Your task to perform on an android device: change keyboard looks Image 0: 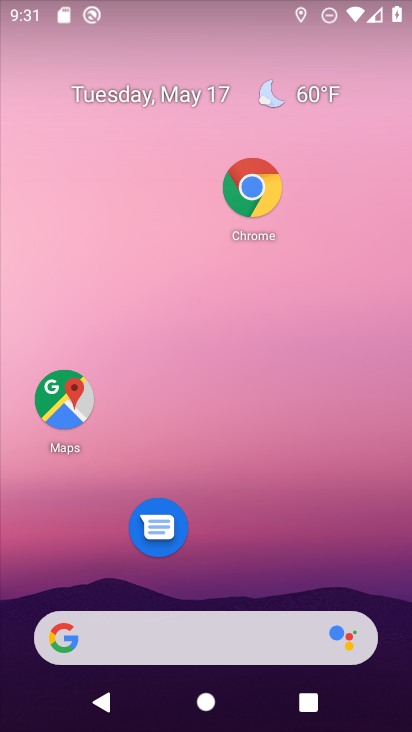
Step 0: drag from (310, 551) to (315, 211)
Your task to perform on an android device: change keyboard looks Image 1: 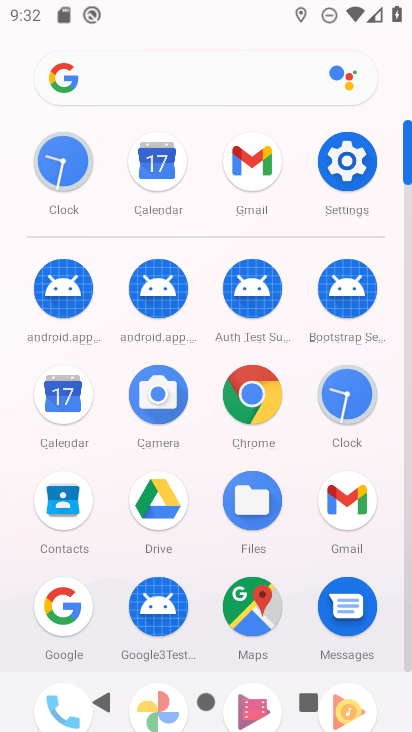
Step 1: click (365, 168)
Your task to perform on an android device: change keyboard looks Image 2: 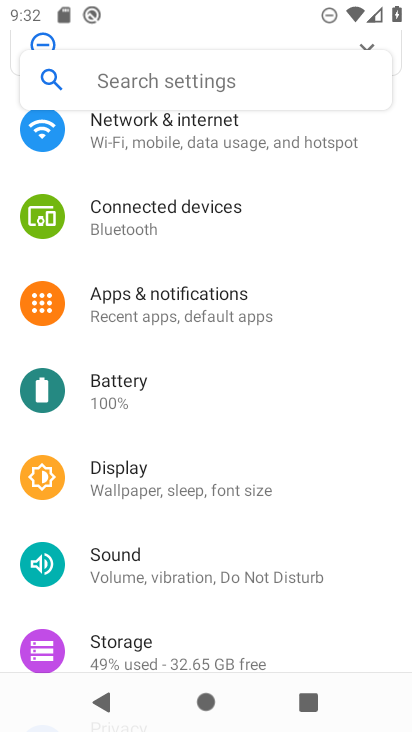
Step 2: drag from (209, 569) to (234, 165)
Your task to perform on an android device: change keyboard looks Image 3: 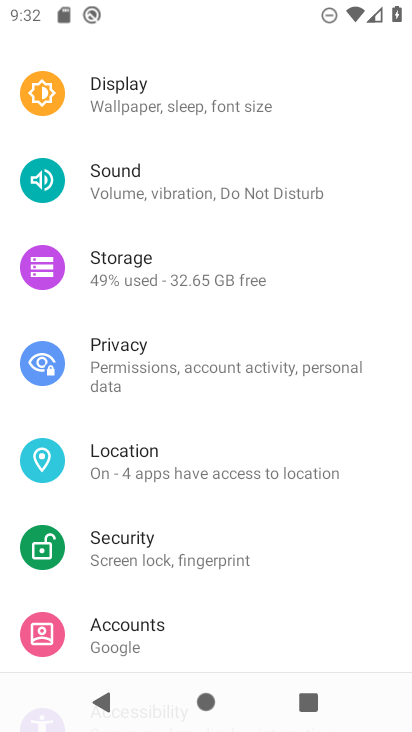
Step 3: drag from (172, 580) to (181, 229)
Your task to perform on an android device: change keyboard looks Image 4: 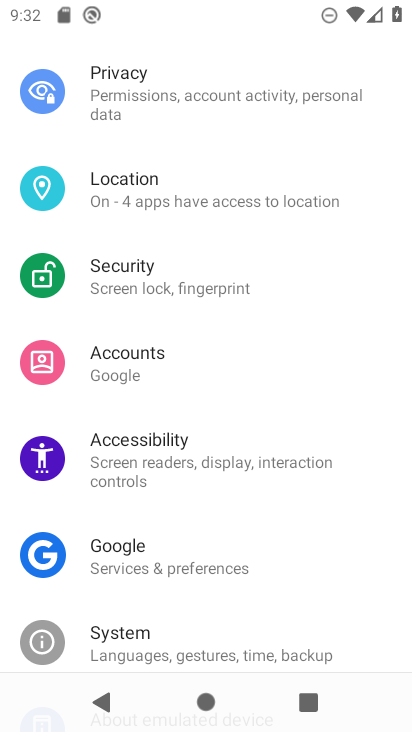
Step 4: click (169, 616)
Your task to perform on an android device: change keyboard looks Image 5: 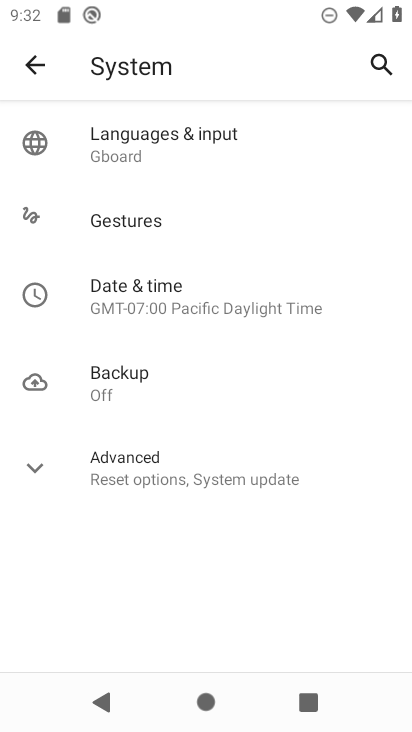
Step 5: click (166, 173)
Your task to perform on an android device: change keyboard looks Image 6: 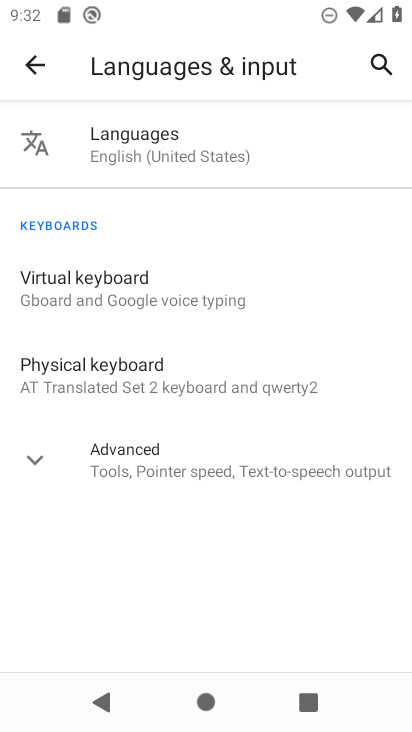
Step 6: click (148, 289)
Your task to perform on an android device: change keyboard looks Image 7: 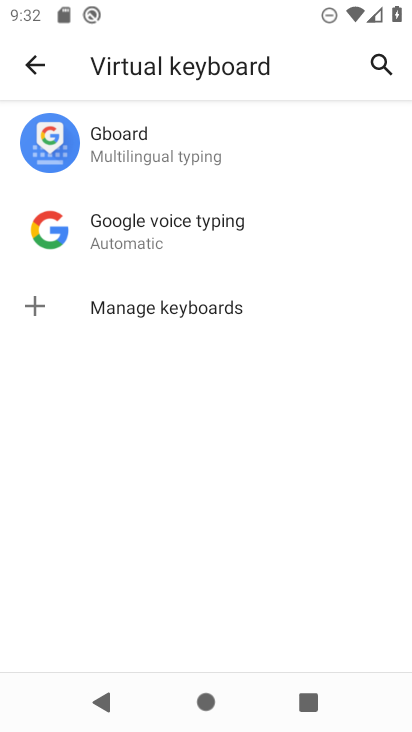
Step 7: click (196, 154)
Your task to perform on an android device: change keyboard looks Image 8: 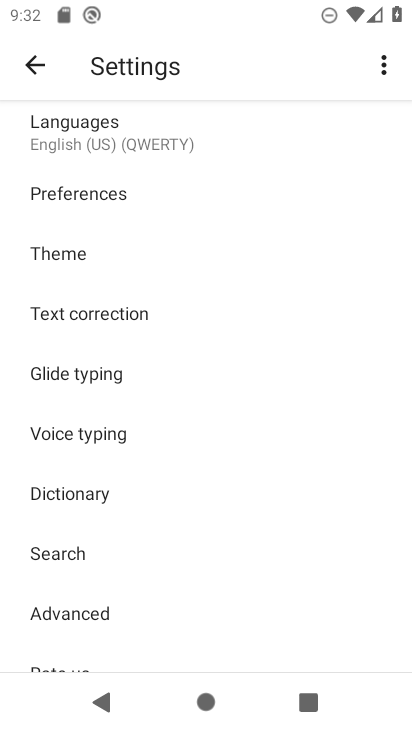
Step 8: click (97, 255)
Your task to perform on an android device: change keyboard looks Image 9: 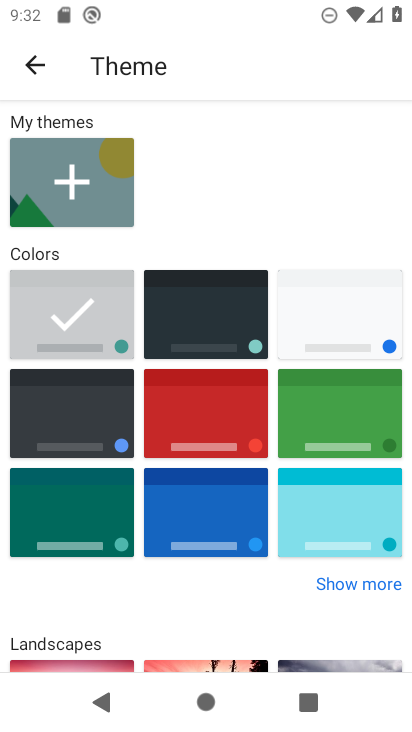
Step 9: click (221, 317)
Your task to perform on an android device: change keyboard looks Image 10: 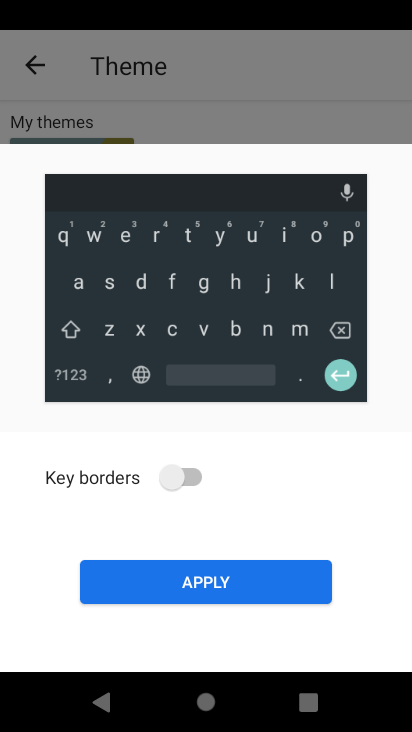
Step 10: click (251, 580)
Your task to perform on an android device: change keyboard looks Image 11: 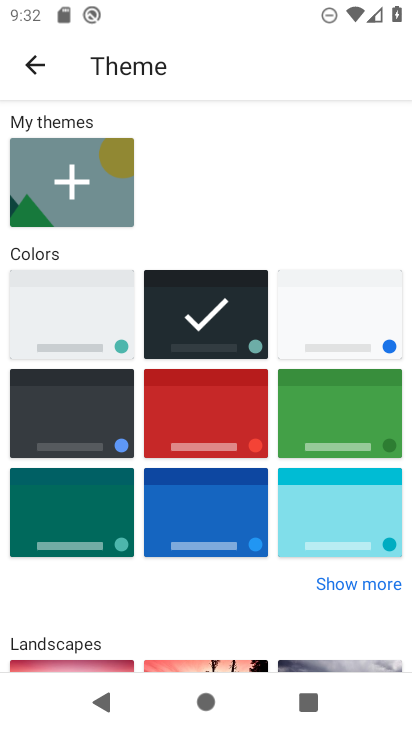
Step 11: task complete